Your task to perform on an android device: What's the weather today? Image 0: 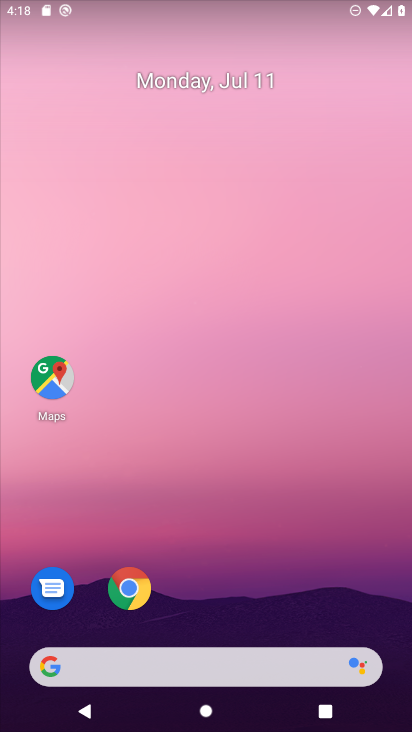
Step 0: click (184, 2)
Your task to perform on an android device: What's the weather today? Image 1: 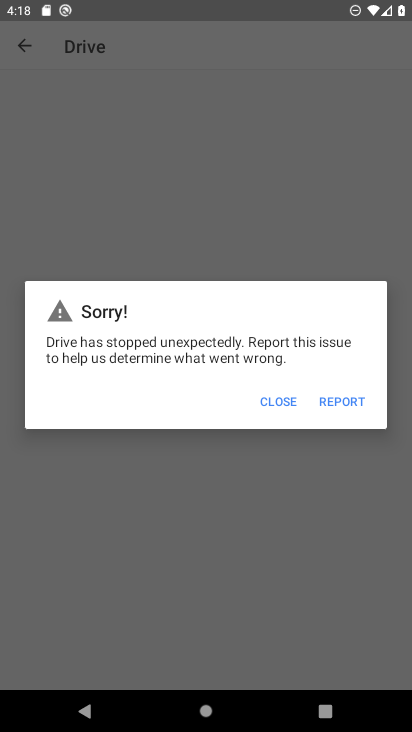
Step 1: click (268, 401)
Your task to perform on an android device: What's the weather today? Image 2: 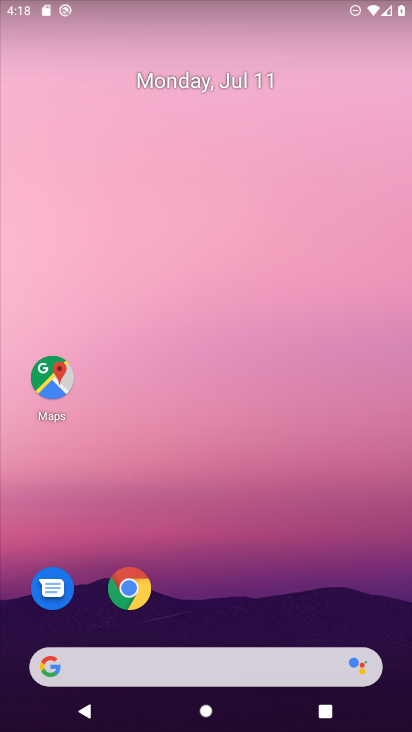
Step 2: drag from (240, 671) to (282, 16)
Your task to perform on an android device: What's the weather today? Image 3: 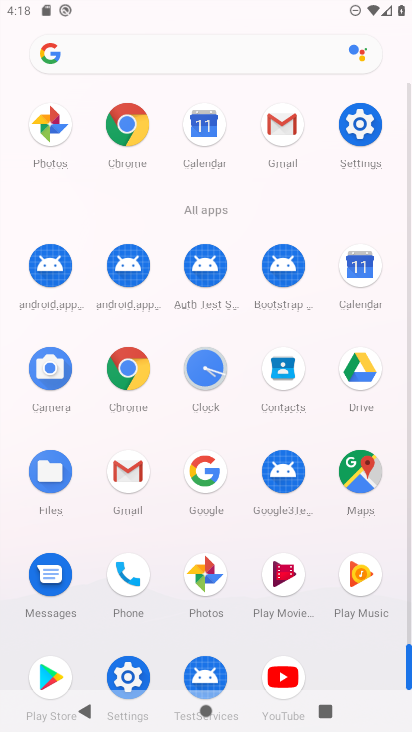
Step 3: click (232, 53)
Your task to perform on an android device: What's the weather today? Image 4: 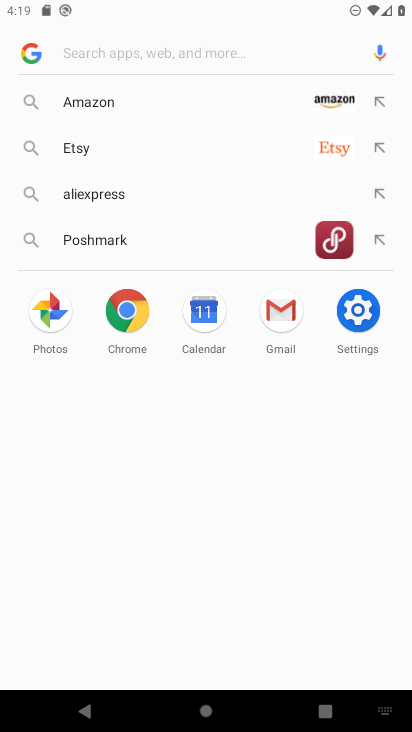
Step 4: type "whats the weather today"
Your task to perform on an android device: What's the weather today? Image 5: 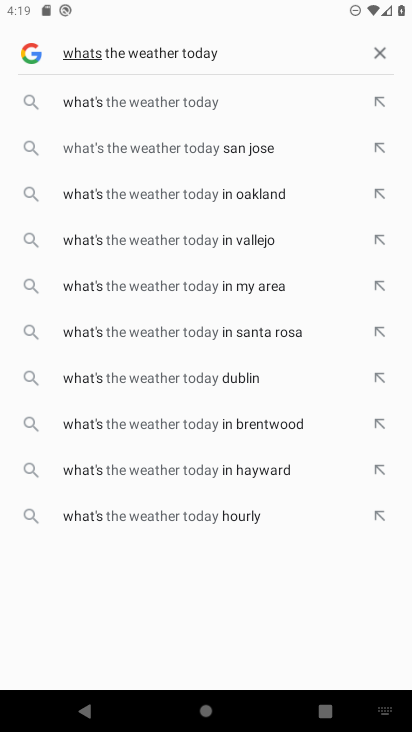
Step 5: click (209, 100)
Your task to perform on an android device: What's the weather today? Image 6: 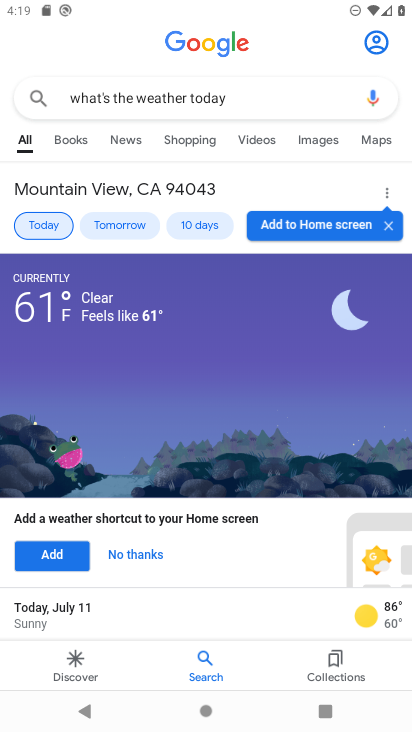
Step 6: task complete